Your task to perform on an android device: read, delete, or share a saved page in the chrome app Image 0: 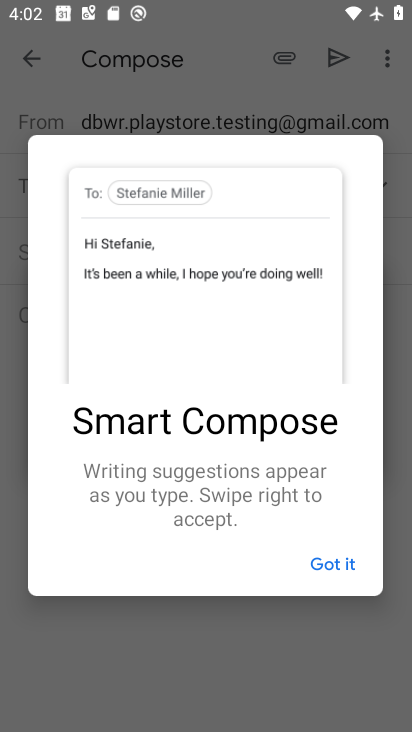
Step 0: press home button
Your task to perform on an android device: read, delete, or share a saved page in the chrome app Image 1: 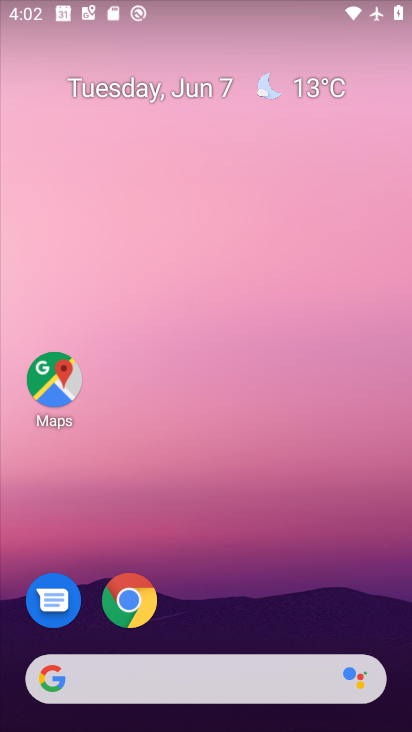
Step 1: click (125, 600)
Your task to perform on an android device: read, delete, or share a saved page in the chrome app Image 2: 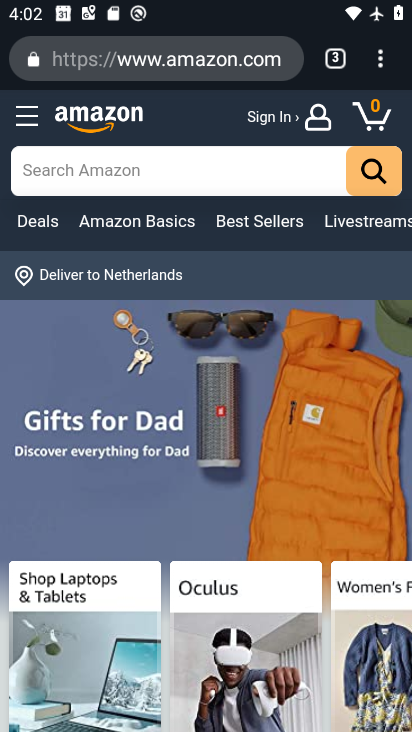
Step 2: task complete